Your task to perform on an android device: check google app version Image 0: 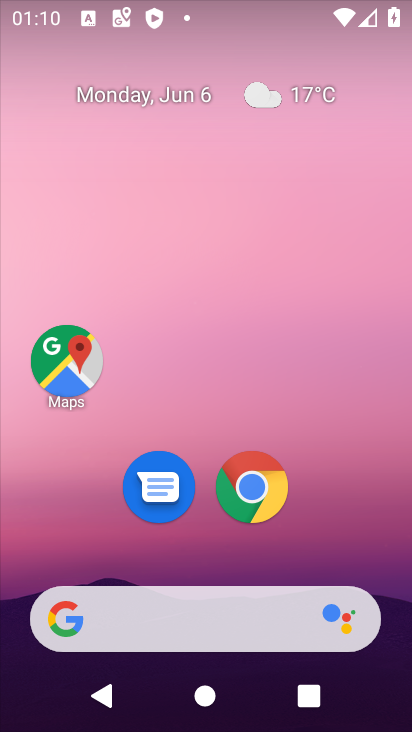
Step 0: click (256, 481)
Your task to perform on an android device: check google app version Image 1: 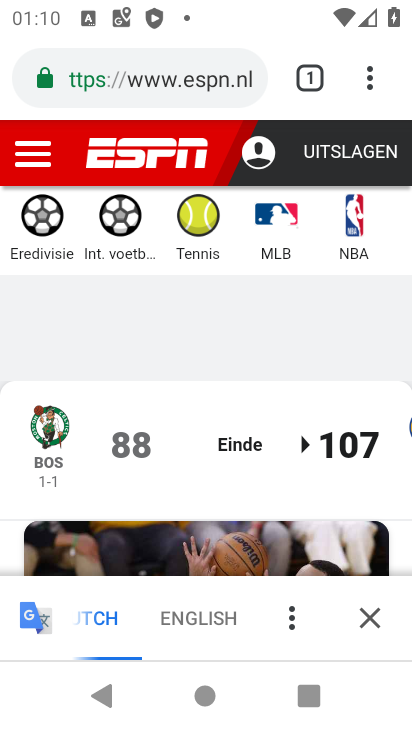
Step 1: click (365, 83)
Your task to perform on an android device: check google app version Image 2: 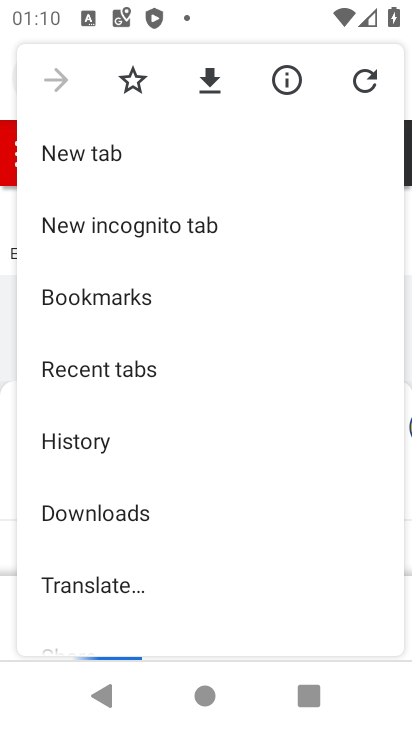
Step 2: drag from (197, 590) to (235, 236)
Your task to perform on an android device: check google app version Image 3: 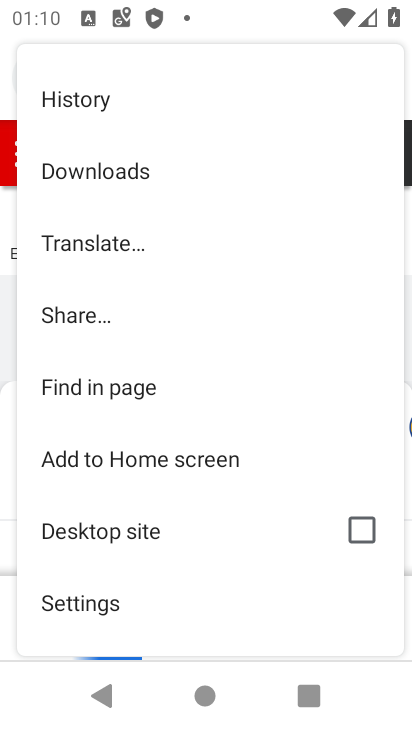
Step 3: click (100, 608)
Your task to perform on an android device: check google app version Image 4: 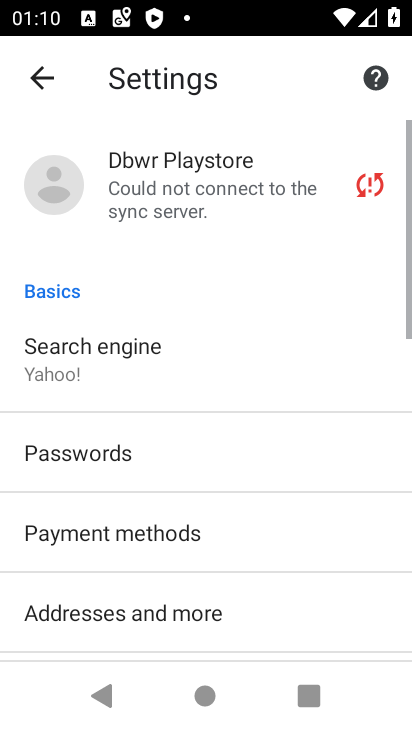
Step 4: drag from (254, 585) to (238, 174)
Your task to perform on an android device: check google app version Image 5: 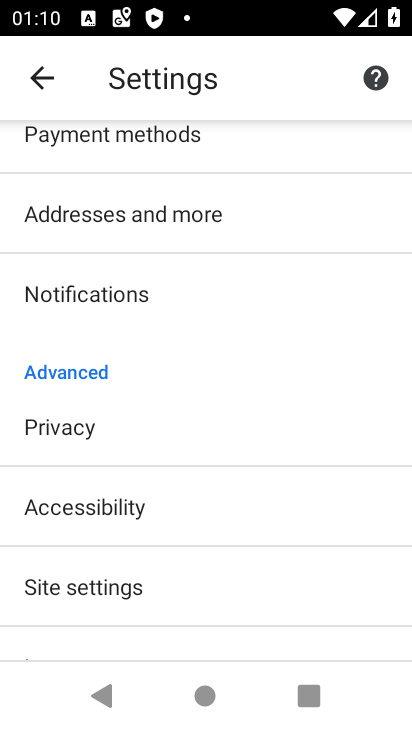
Step 5: drag from (218, 598) to (250, 170)
Your task to perform on an android device: check google app version Image 6: 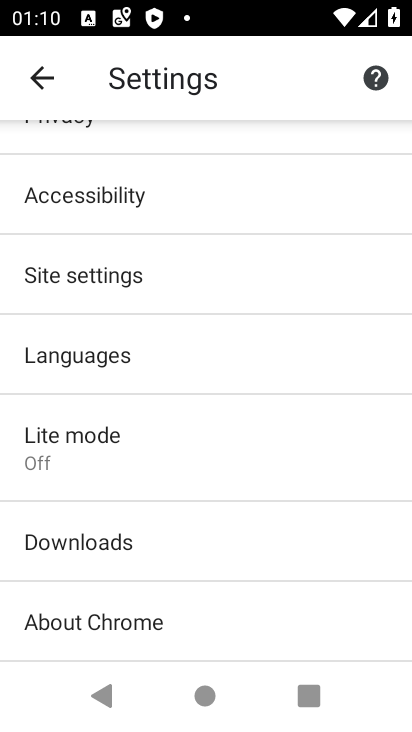
Step 6: drag from (225, 606) to (197, 360)
Your task to perform on an android device: check google app version Image 7: 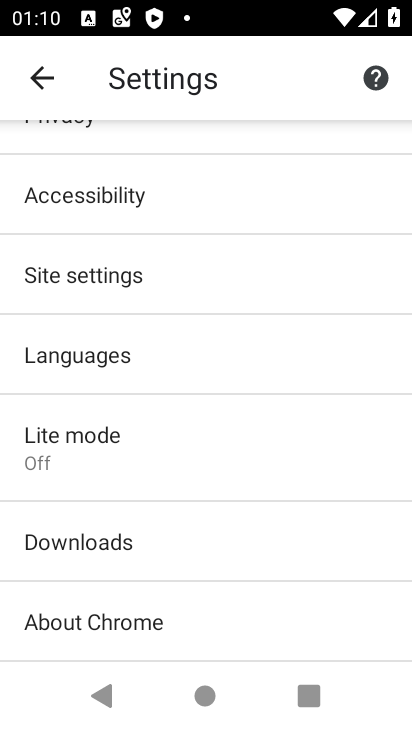
Step 7: click (88, 623)
Your task to perform on an android device: check google app version Image 8: 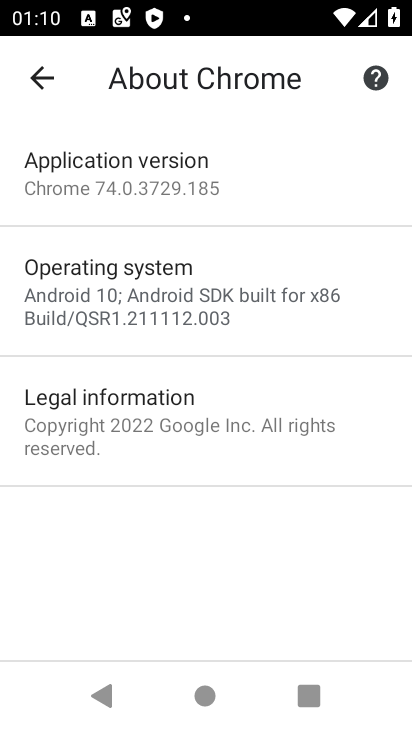
Step 8: click (99, 166)
Your task to perform on an android device: check google app version Image 9: 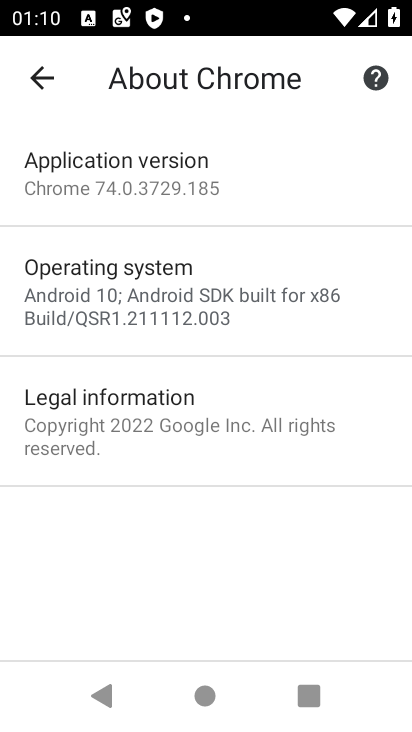
Step 9: task complete